Your task to perform on an android device: turn smart compose on in the gmail app Image 0: 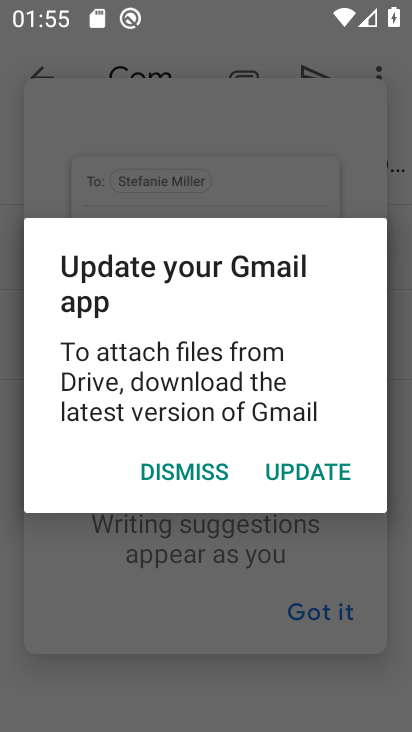
Step 0: press home button
Your task to perform on an android device: turn smart compose on in the gmail app Image 1: 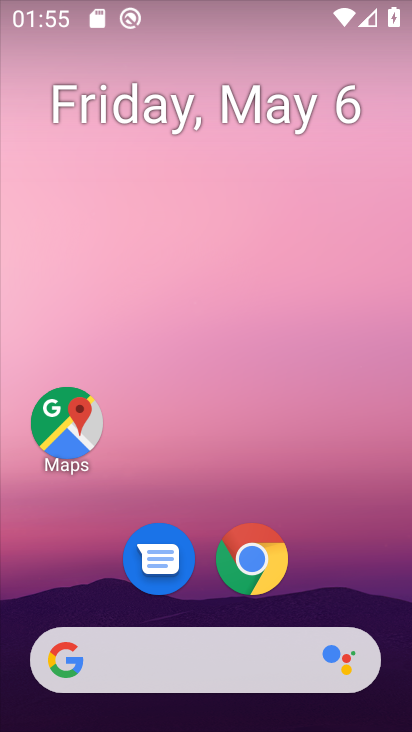
Step 1: drag from (315, 693) to (359, 185)
Your task to perform on an android device: turn smart compose on in the gmail app Image 2: 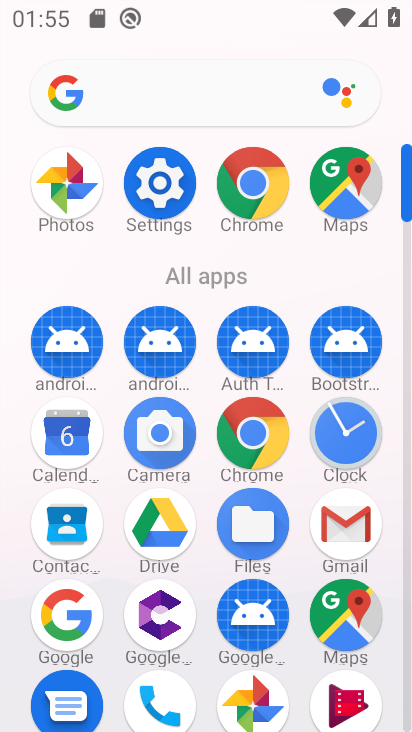
Step 2: click (335, 510)
Your task to perform on an android device: turn smart compose on in the gmail app Image 3: 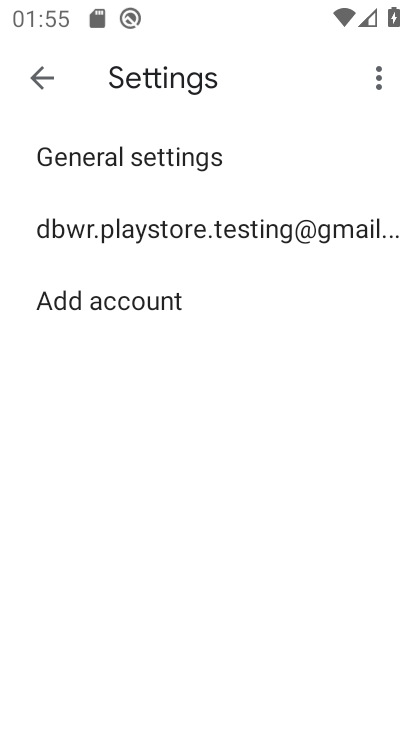
Step 3: click (199, 234)
Your task to perform on an android device: turn smart compose on in the gmail app Image 4: 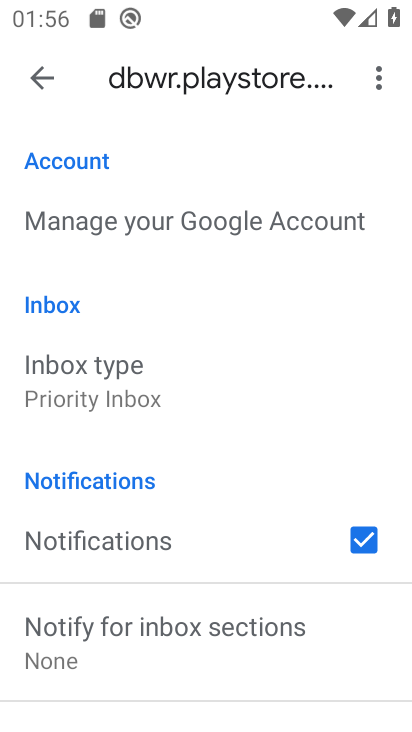
Step 4: task complete